Your task to perform on an android device: remove spam from my inbox in the gmail app Image 0: 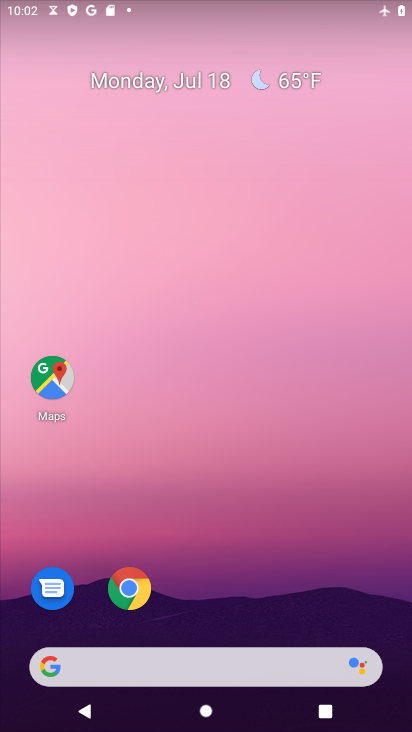
Step 0: drag from (161, 658) to (269, 124)
Your task to perform on an android device: remove spam from my inbox in the gmail app Image 1: 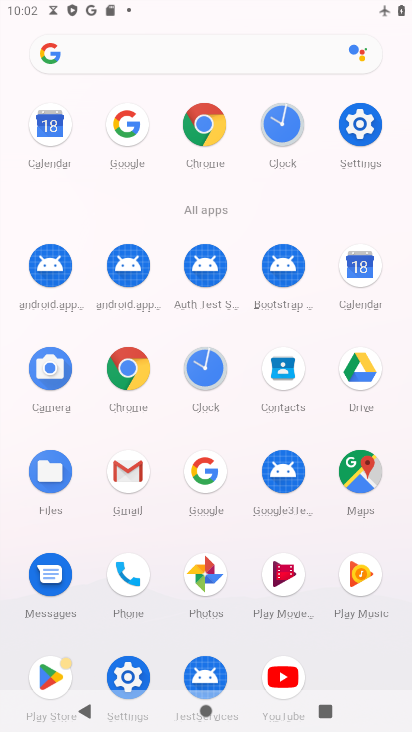
Step 1: click (129, 472)
Your task to perform on an android device: remove spam from my inbox in the gmail app Image 2: 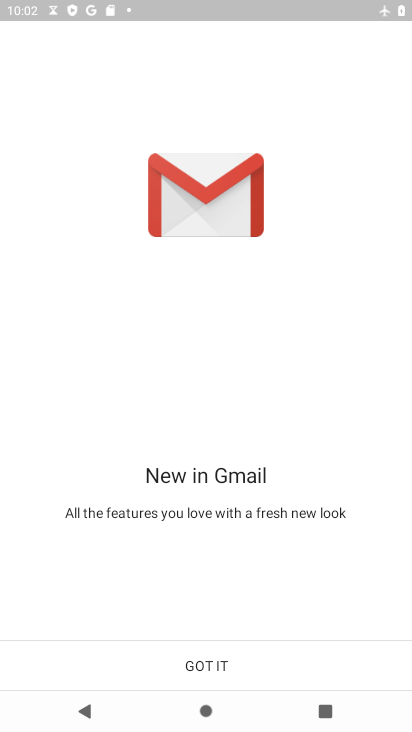
Step 2: click (204, 664)
Your task to perform on an android device: remove spam from my inbox in the gmail app Image 3: 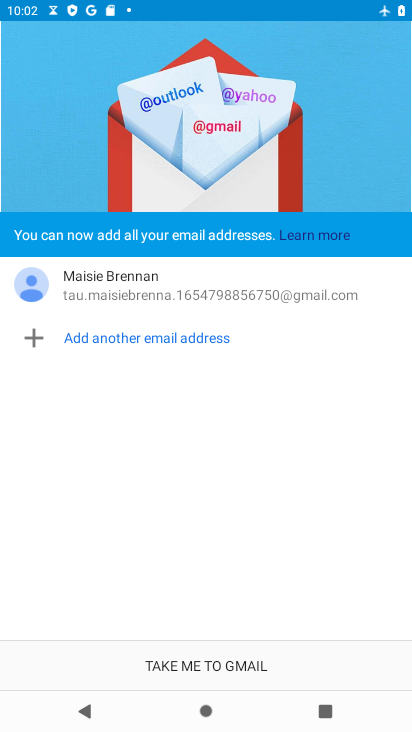
Step 3: click (204, 662)
Your task to perform on an android device: remove spam from my inbox in the gmail app Image 4: 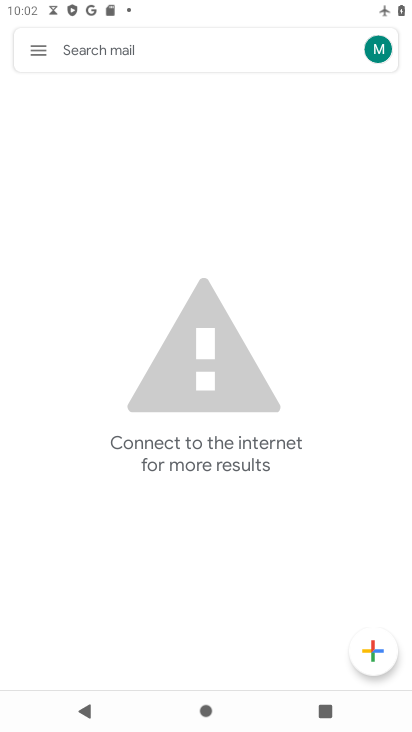
Step 4: click (38, 52)
Your task to perform on an android device: remove spam from my inbox in the gmail app Image 5: 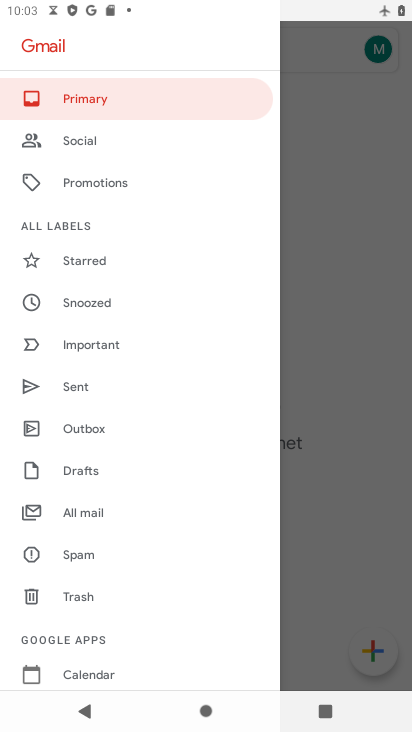
Step 5: click (85, 547)
Your task to perform on an android device: remove spam from my inbox in the gmail app Image 6: 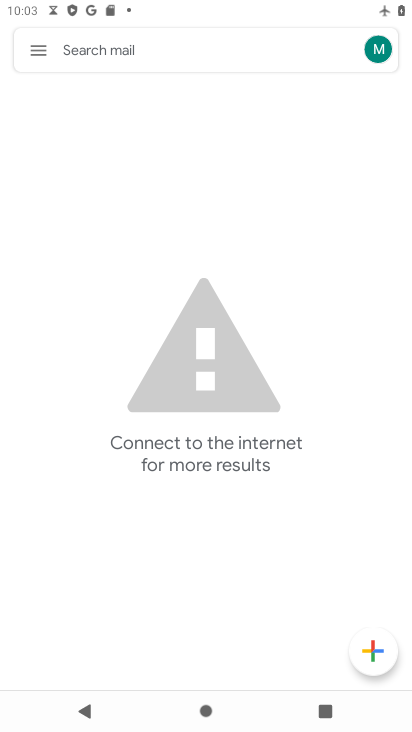
Step 6: task complete